Your task to perform on an android device: toggle priority inbox in the gmail app Image 0: 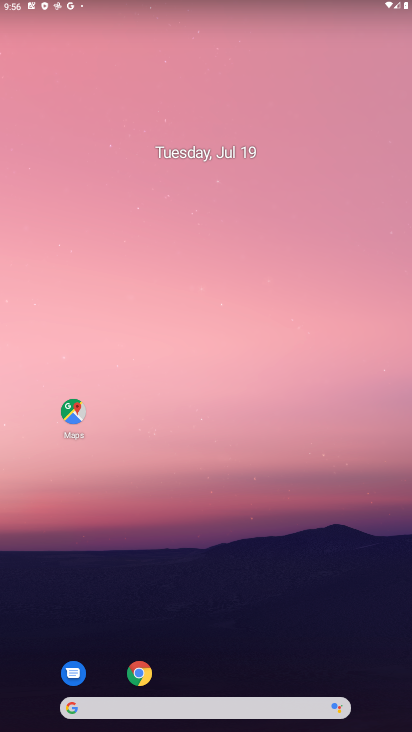
Step 0: drag from (266, 686) to (199, 217)
Your task to perform on an android device: toggle priority inbox in the gmail app Image 1: 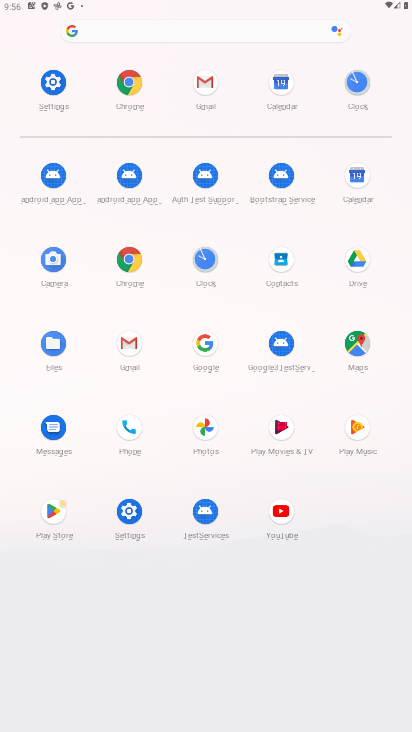
Step 1: click (195, 111)
Your task to perform on an android device: toggle priority inbox in the gmail app Image 2: 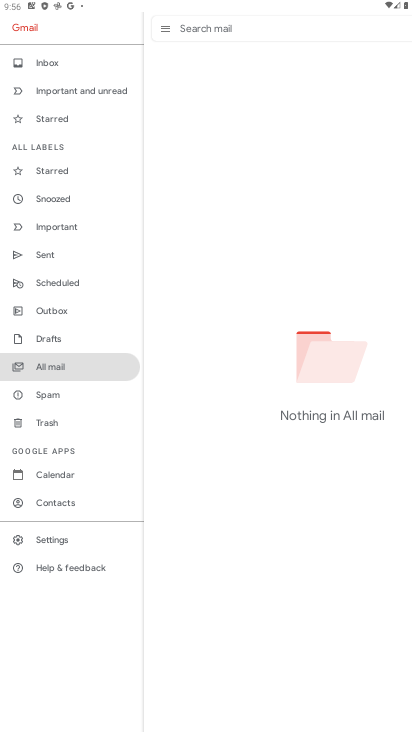
Step 2: task complete